Your task to perform on an android device: What's the weather like in Johannesburg? Image 0: 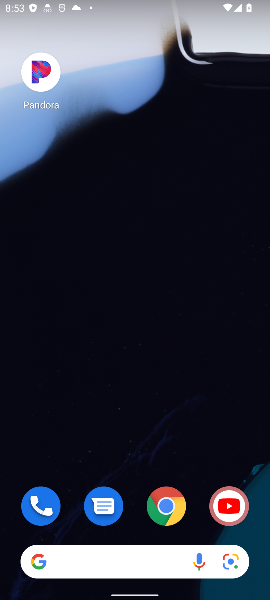
Step 0: click (173, 502)
Your task to perform on an android device: What's the weather like in Johannesburg? Image 1: 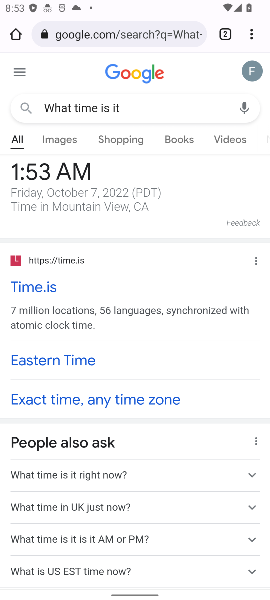
Step 1: click (162, 107)
Your task to perform on an android device: What's the weather like in Johannesburg? Image 2: 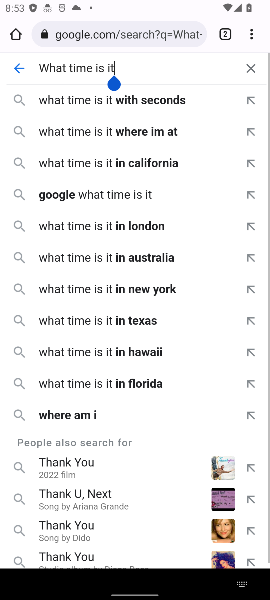
Step 2: click (171, 23)
Your task to perform on an android device: What's the weather like in Johannesburg? Image 3: 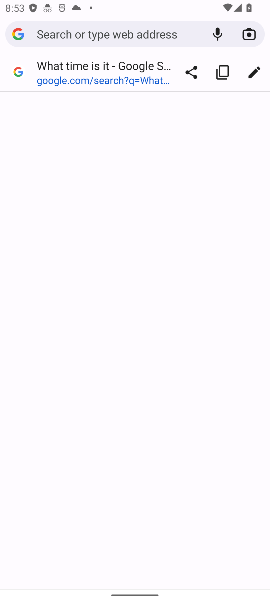
Step 3: type "weather like in Johannesburg"
Your task to perform on an android device: What's the weather like in Johannesburg? Image 4: 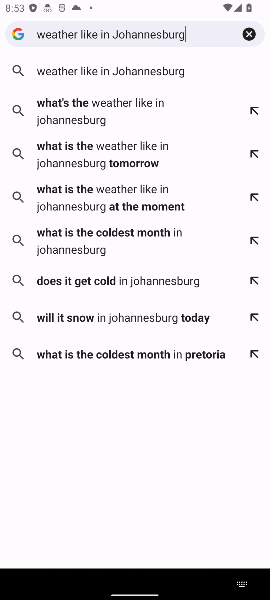
Step 4: click (122, 73)
Your task to perform on an android device: What's the weather like in Johannesburg? Image 5: 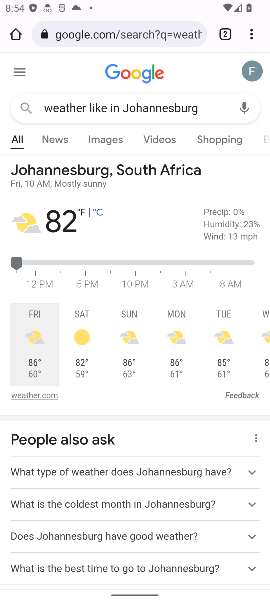
Step 5: task complete